Your task to perform on an android device: toggle airplane mode Image 0: 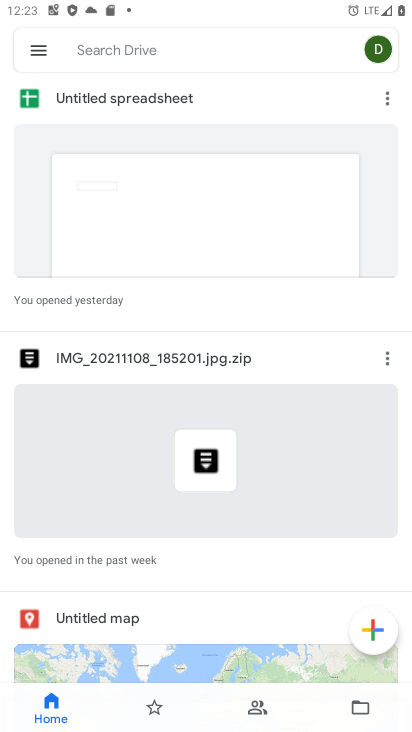
Step 0: press home button
Your task to perform on an android device: toggle airplane mode Image 1: 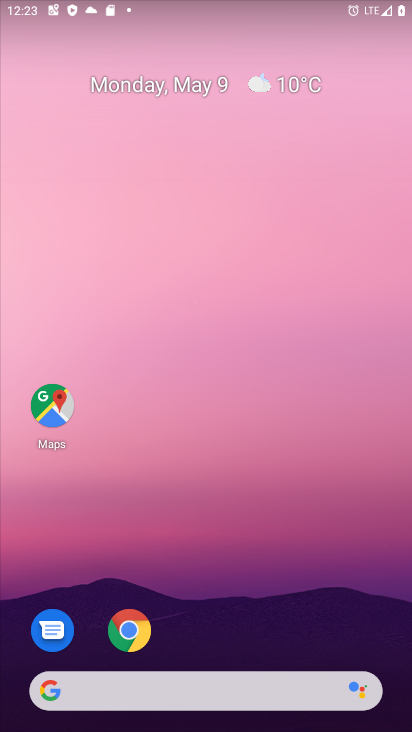
Step 1: drag from (297, 606) to (229, 128)
Your task to perform on an android device: toggle airplane mode Image 2: 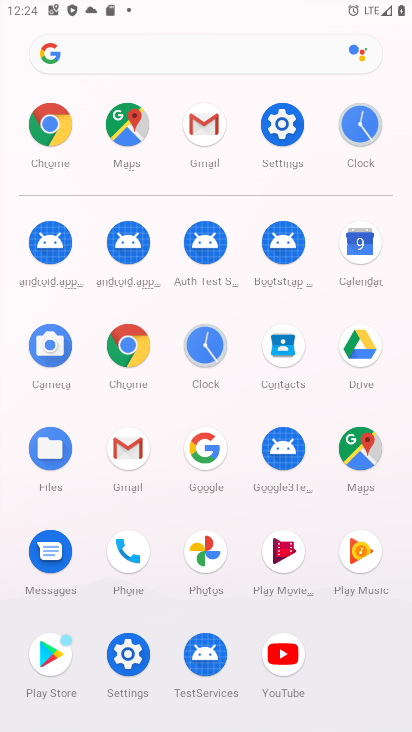
Step 2: drag from (244, 6) to (268, 597)
Your task to perform on an android device: toggle airplane mode Image 3: 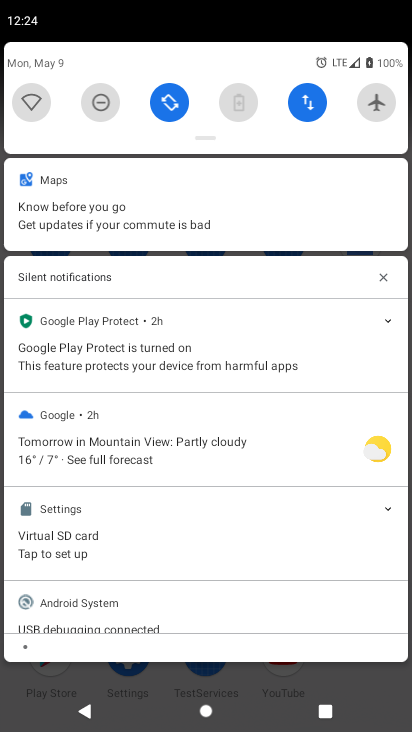
Step 3: click (378, 102)
Your task to perform on an android device: toggle airplane mode Image 4: 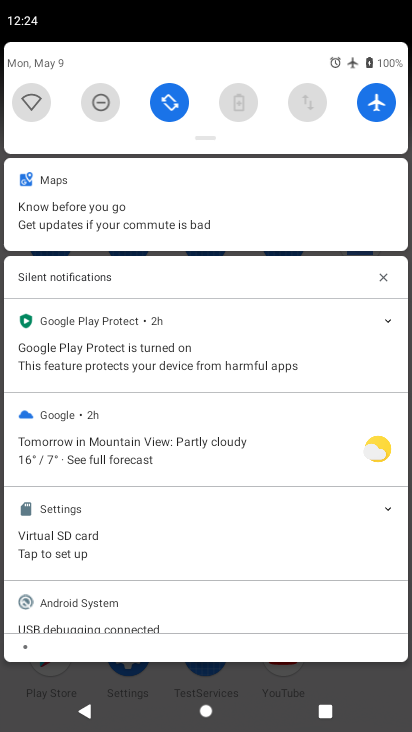
Step 4: task complete